Your task to perform on an android device: Toggle the flashlight Image 0: 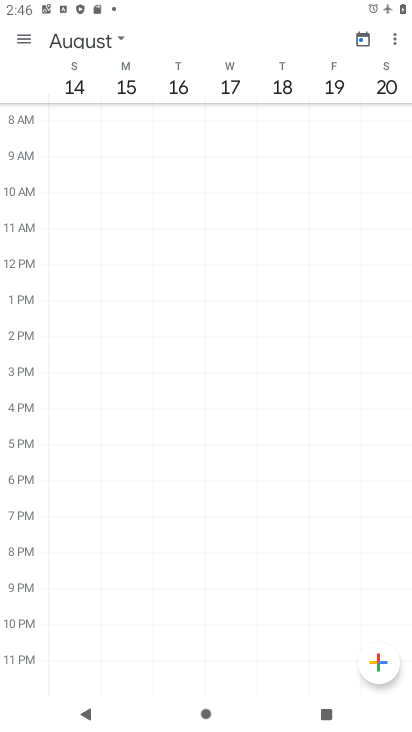
Step 0: press home button
Your task to perform on an android device: Toggle the flashlight Image 1: 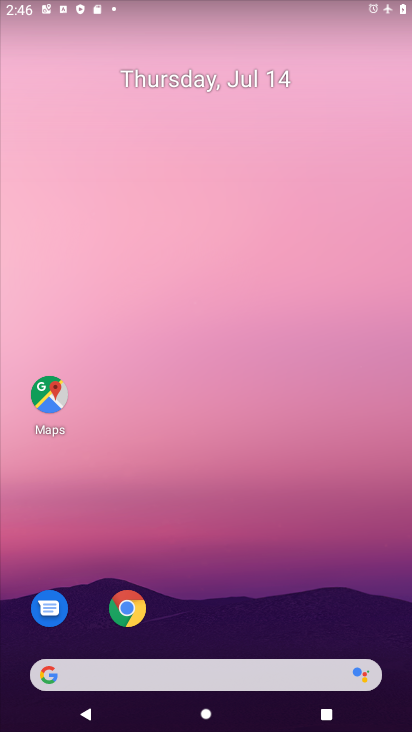
Step 1: drag from (204, 20) to (198, 364)
Your task to perform on an android device: Toggle the flashlight Image 2: 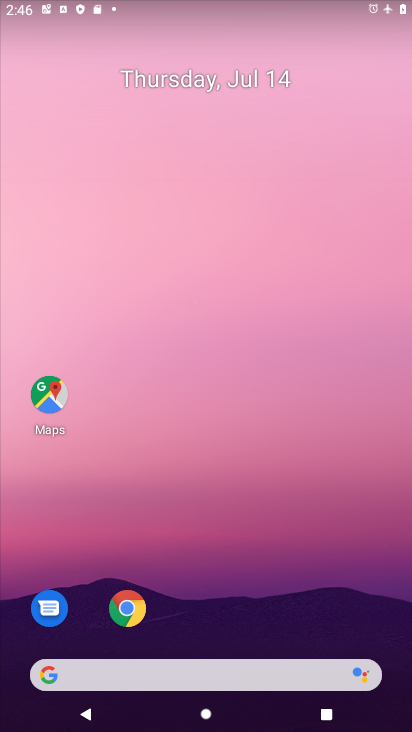
Step 2: drag from (231, 16) to (192, 330)
Your task to perform on an android device: Toggle the flashlight Image 3: 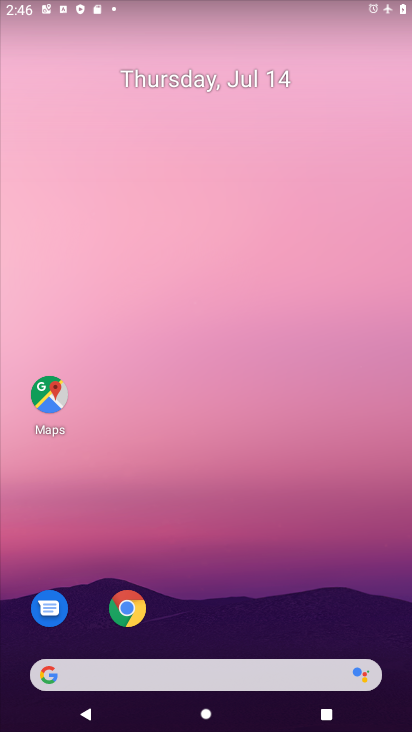
Step 3: drag from (225, 20) to (199, 348)
Your task to perform on an android device: Toggle the flashlight Image 4: 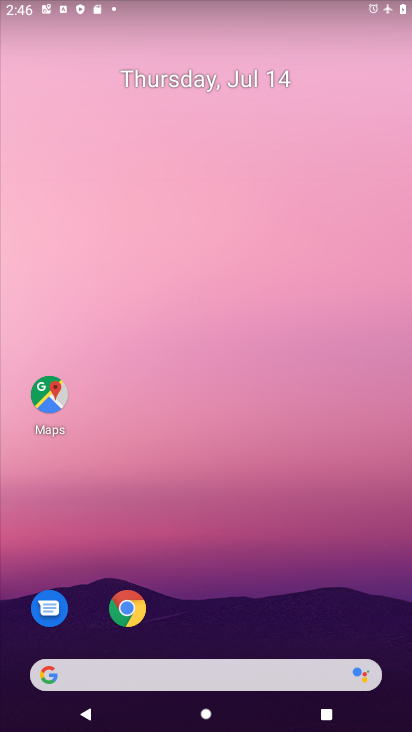
Step 4: drag from (227, 37) to (214, 335)
Your task to perform on an android device: Toggle the flashlight Image 5: 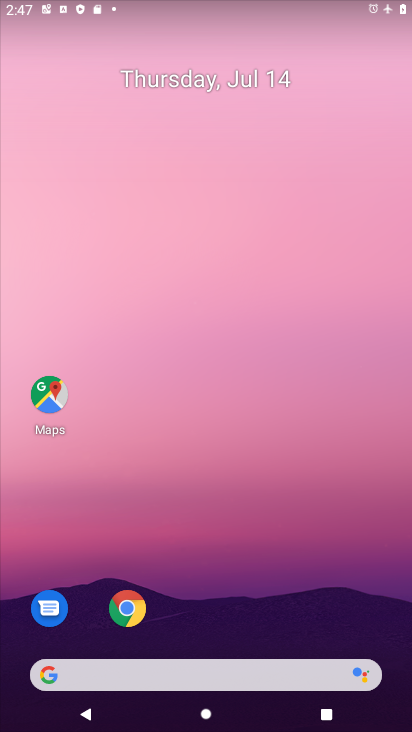
Step 5: drag from (246, 28) to (243, 469)
Your task to perform on an android device: Toggle the flashlight Image 6: 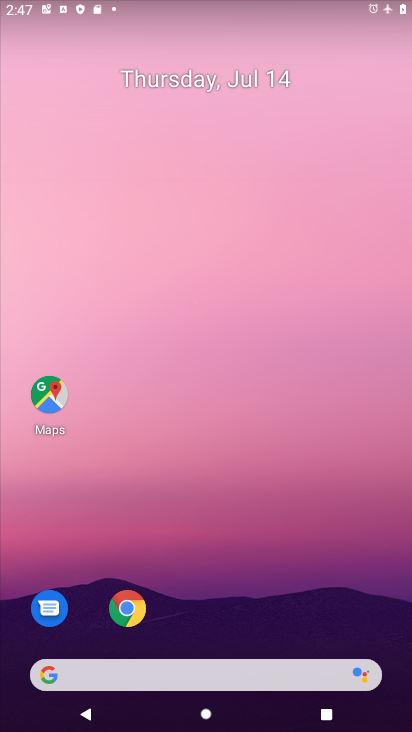
Step 6: drag from (232, 22) to (257, 445)
Your task to perform on an android device: Toggle the flashlight Image 7: 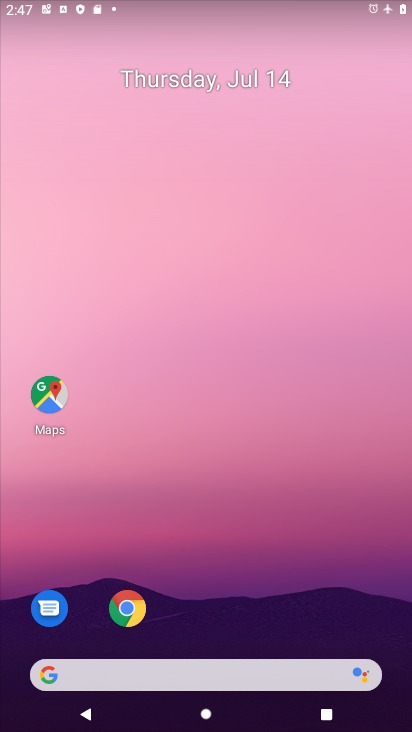
Step 7: drag from (201, 6) to (200, 405)
Your task to perform on an android device: Toggle the flashlight Image 8: 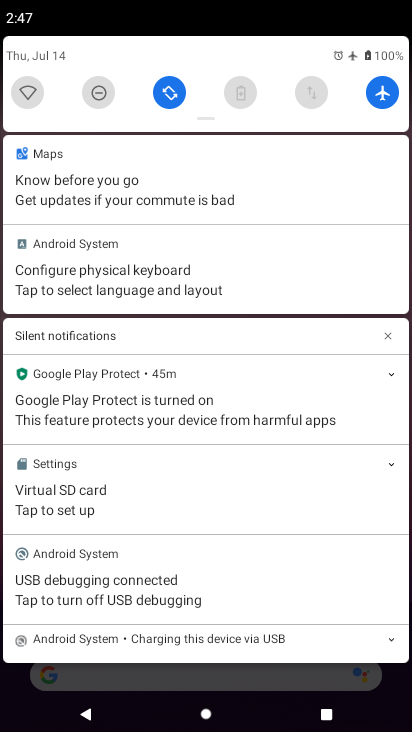
Step 8: drag from (200, 123) to (207, 460)
Your task to perform on an android device: Toggle the flashlight Image 9: 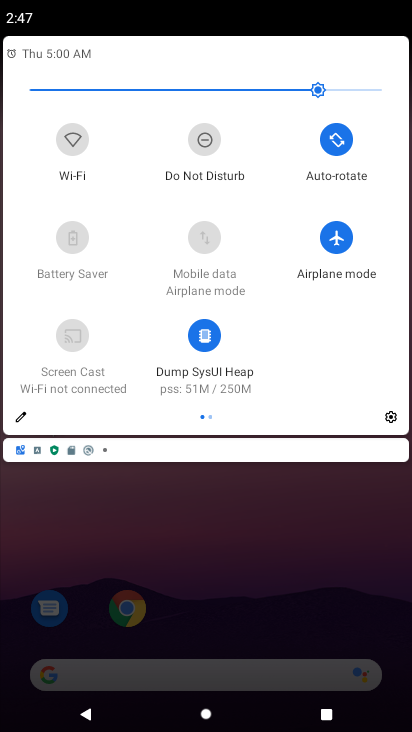
Step 9: click (19, 414)
Your task to perform on an android device: Toggle the flashlight Image 10: 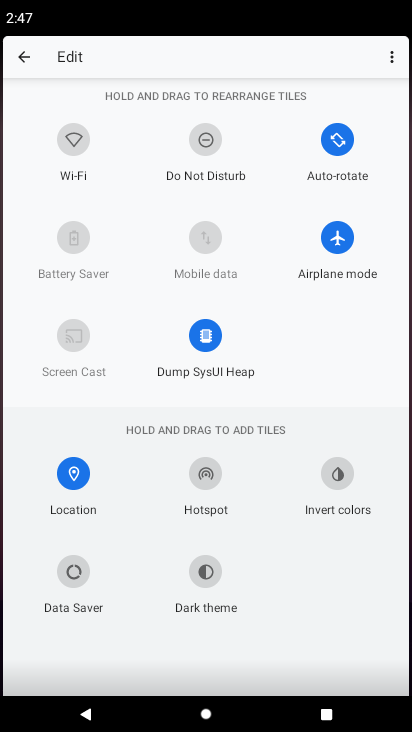
Step 10: task complete